Your task to perform on an android device: Go to location settings Image 0: 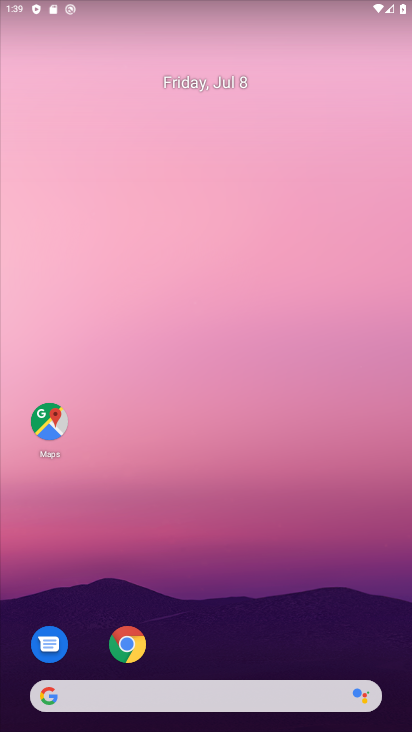
Step 0: drag from (222, 652) to (352, 122)
Your task to perform on an android device: Go to location settings Image 1: 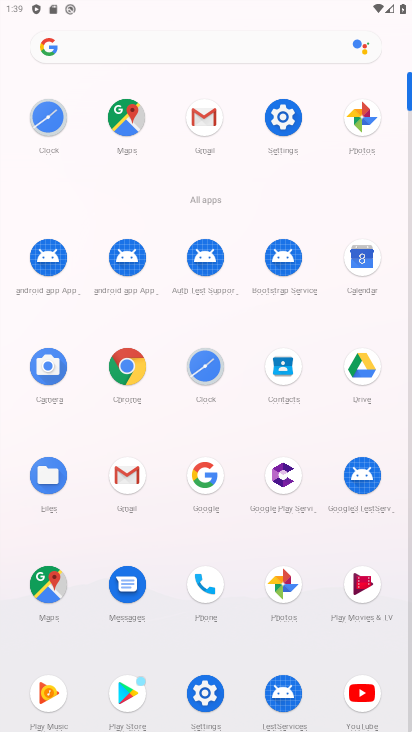
Step 1: click (287, 118)
Your task to perform on an android device: Go to location settings Image 2: 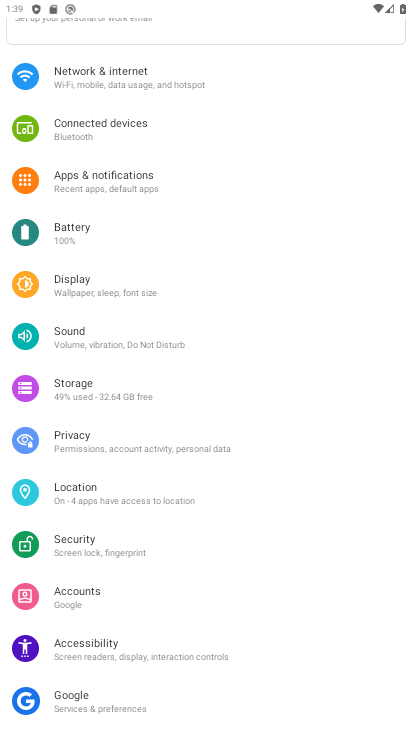
Step 2: click (92, 495)
Your task to perform on an android device: Go to location settings Image 3: 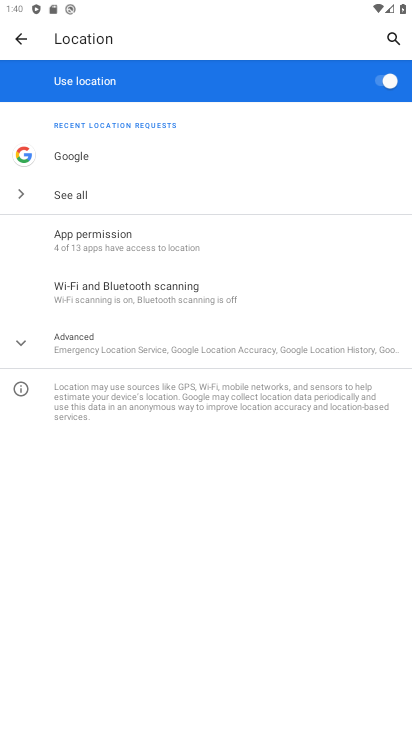
Step 3: task complete